Your task to perform on an android device: Search for the best coffee tables on Crate & Barrel Image 0: 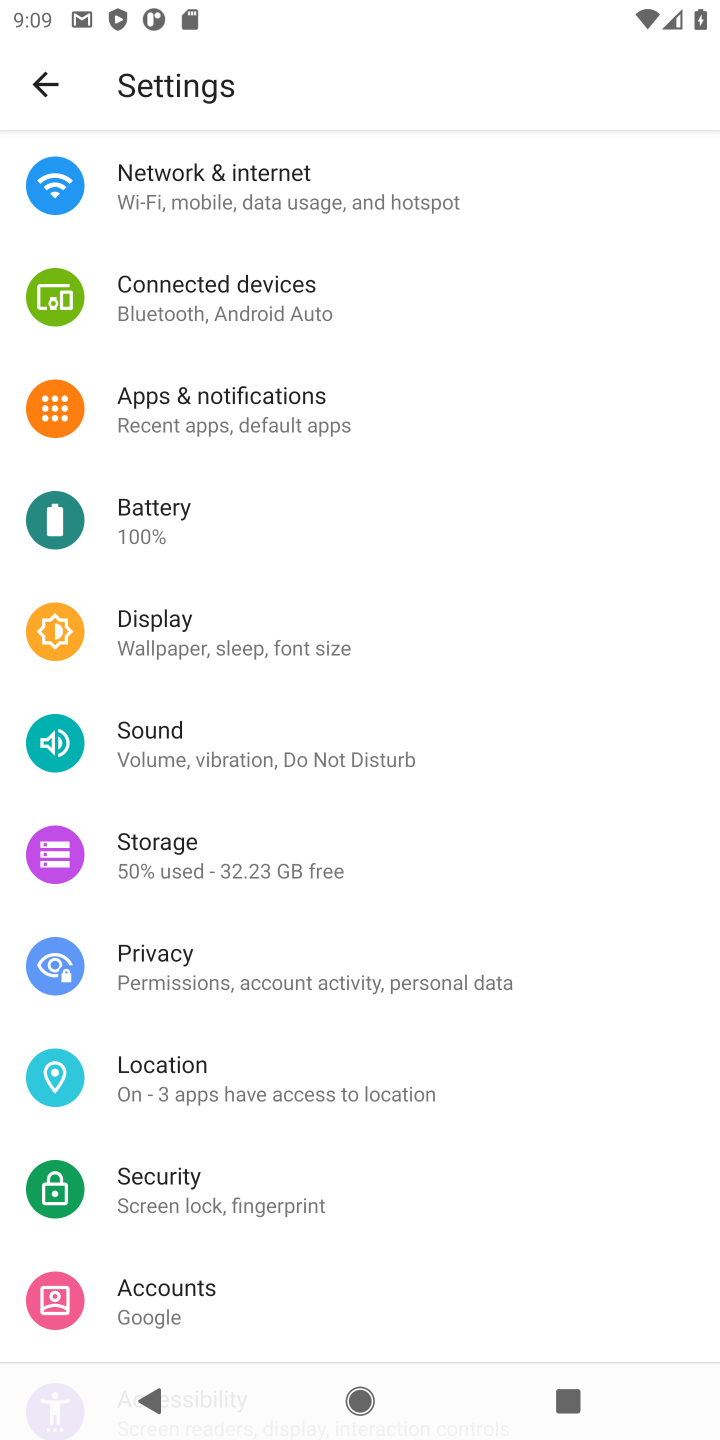
Step 0: press home button
Your task to perform on an android device: Search for the best coffee tables on Crate & Barrel Image 1: 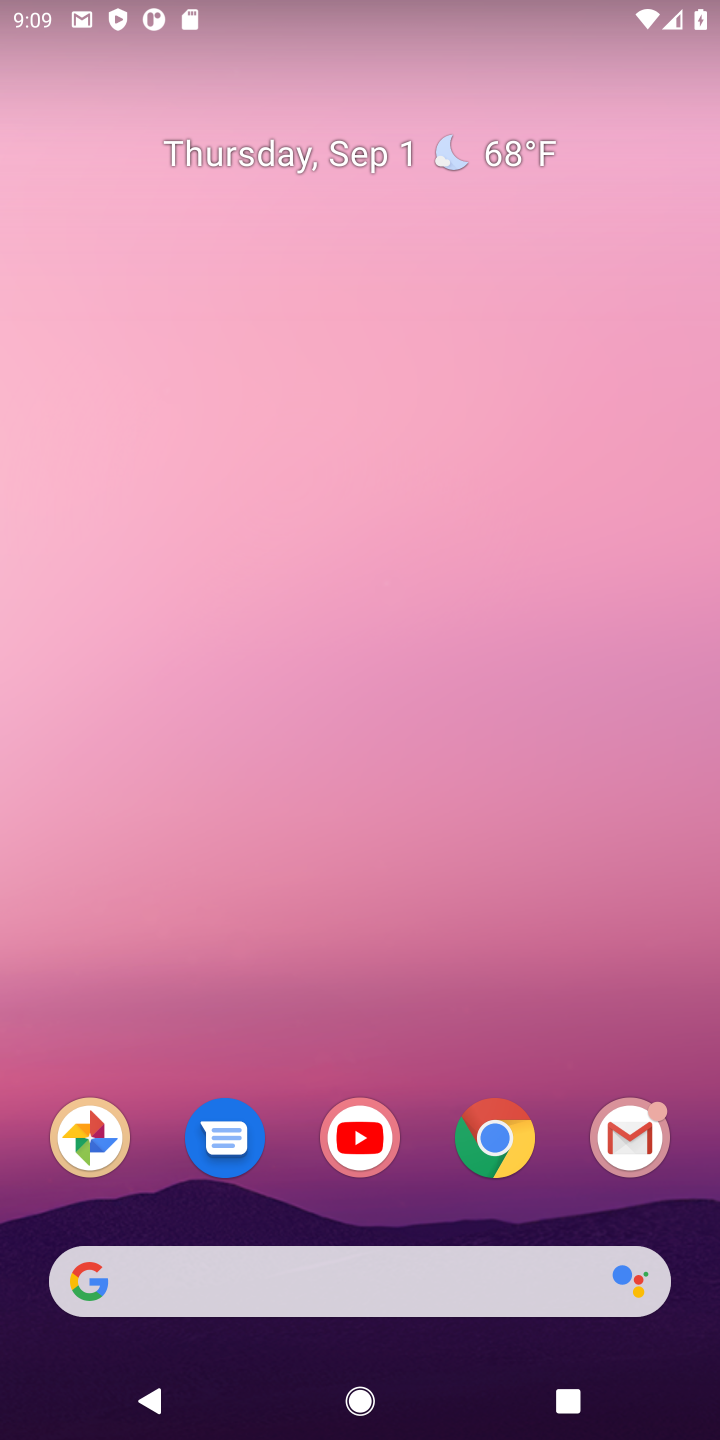
Step 1: click (486, 1135)
Your task to perform on an android device: Search for the best coffee tables on Crate & Barrel Image 2: 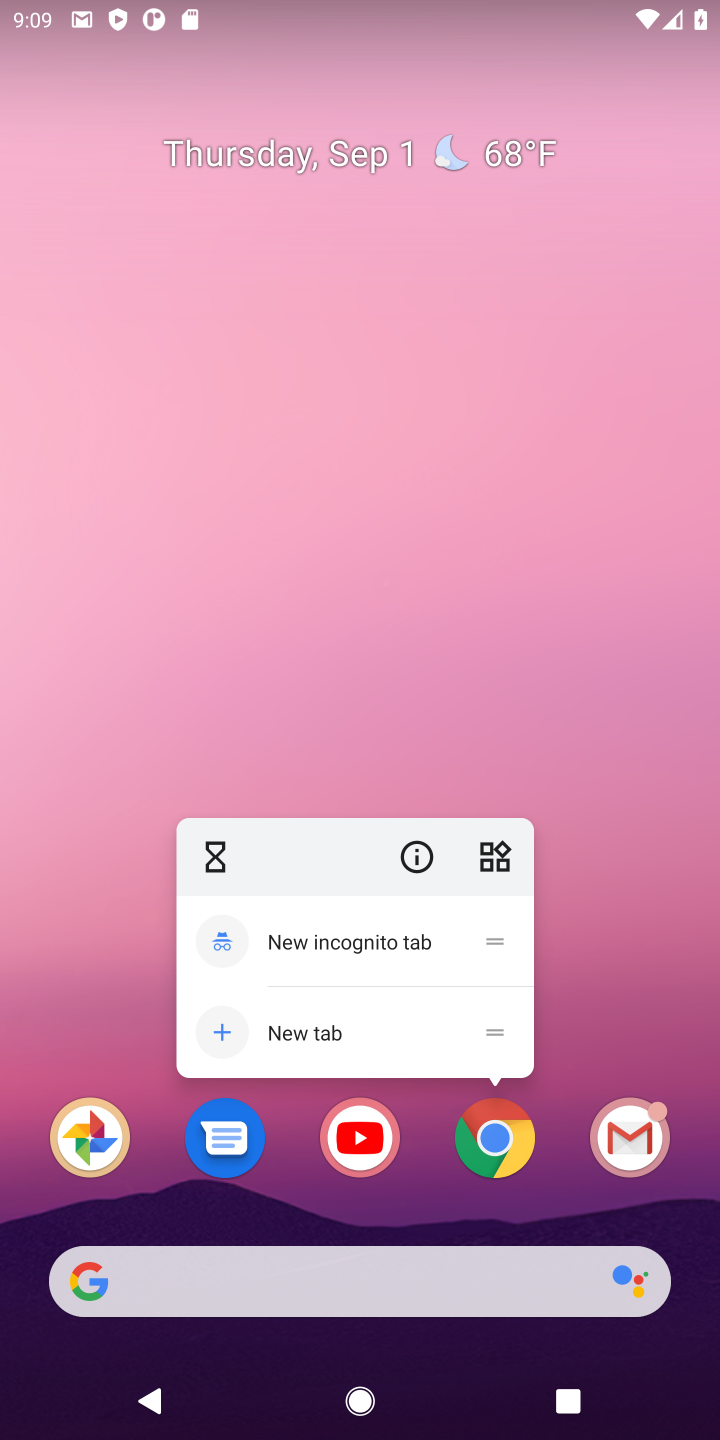
Step 2: click (376, 1026)
Your task to perform on an android device: Search for the best coffee tables on Crate & Barrel Image 3: 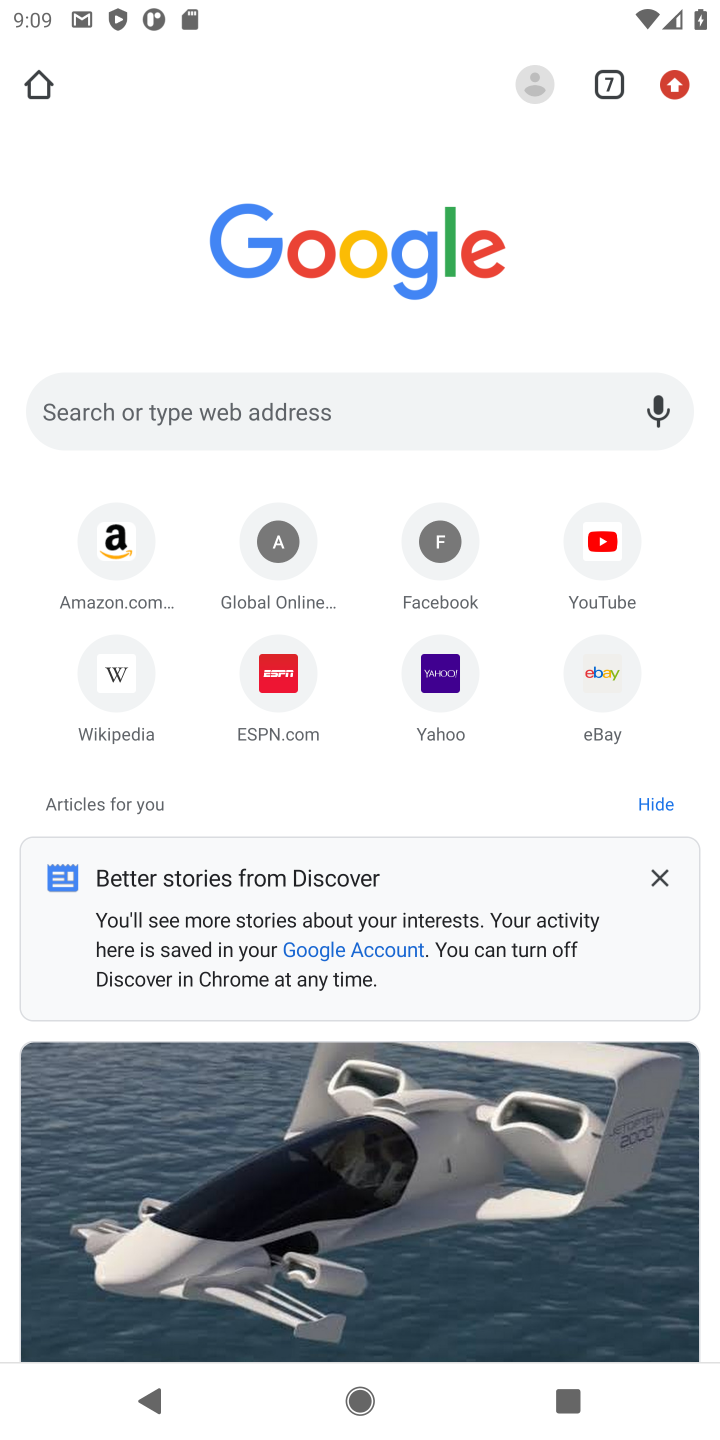
Step 3: click (276, 403)
Your task to perform on an android device: Search for the best coffee tables on Crate & Barrel Image 4: 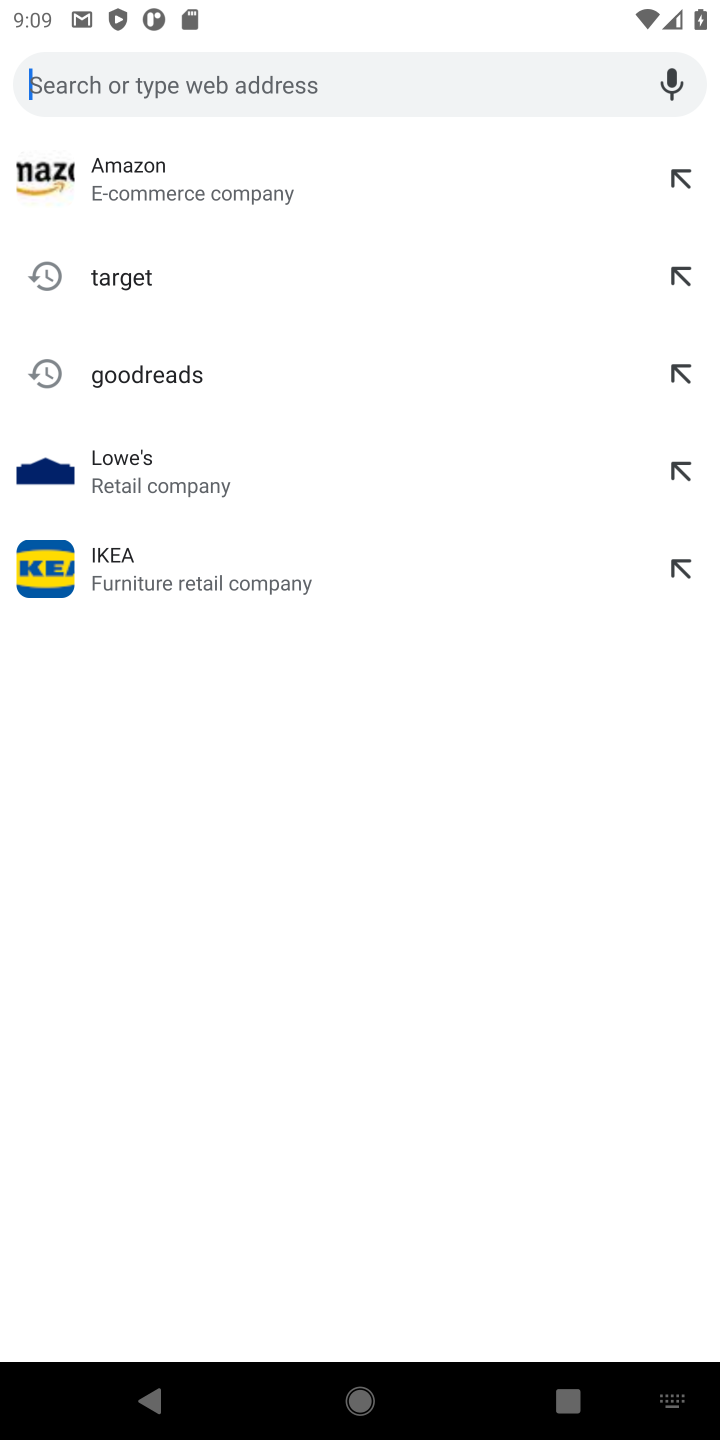
Step 4: type "Crate & Barrel"
Your task to perform on an android device: Search for the best coffee tables on Crate & Barrel Image 5: 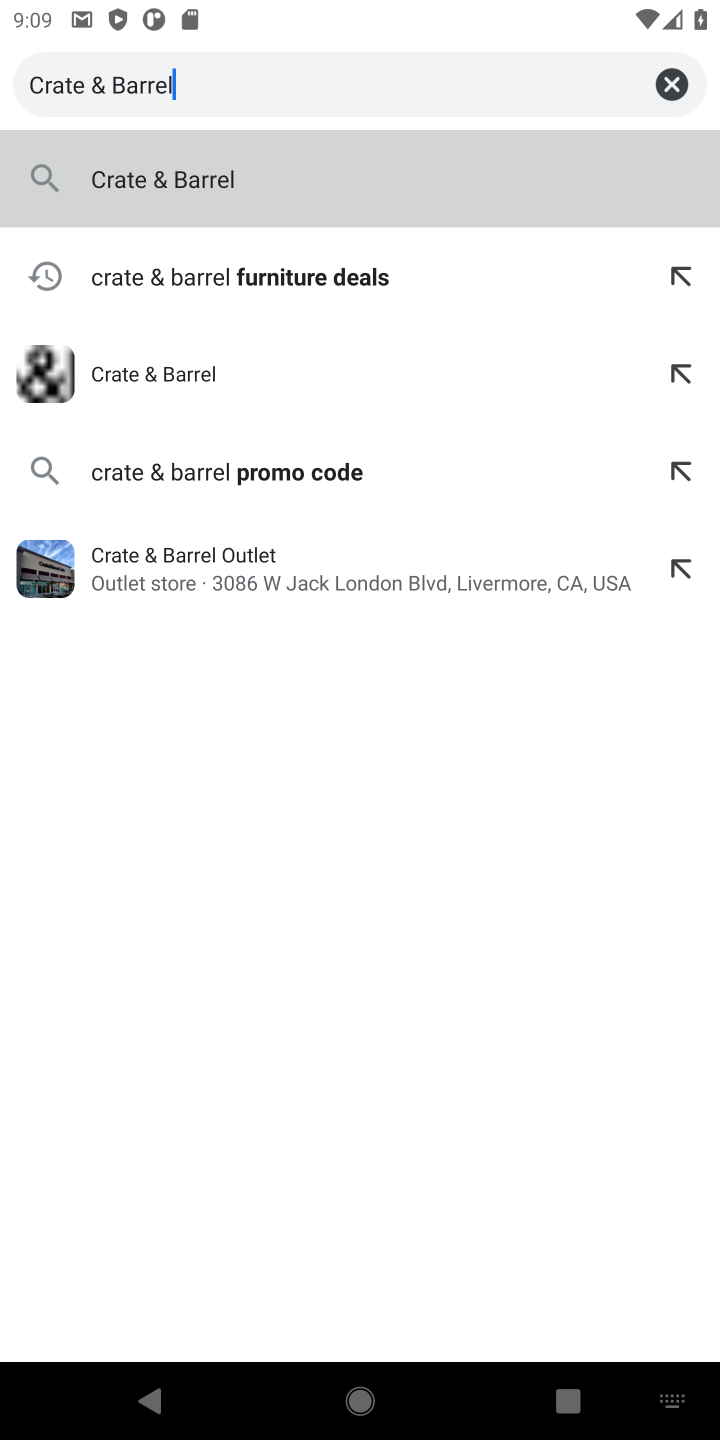
Step 5: click (301, 191)
Your task to perform on an android device: Search for the best coffee tables on Crate & Barrel Image 6: 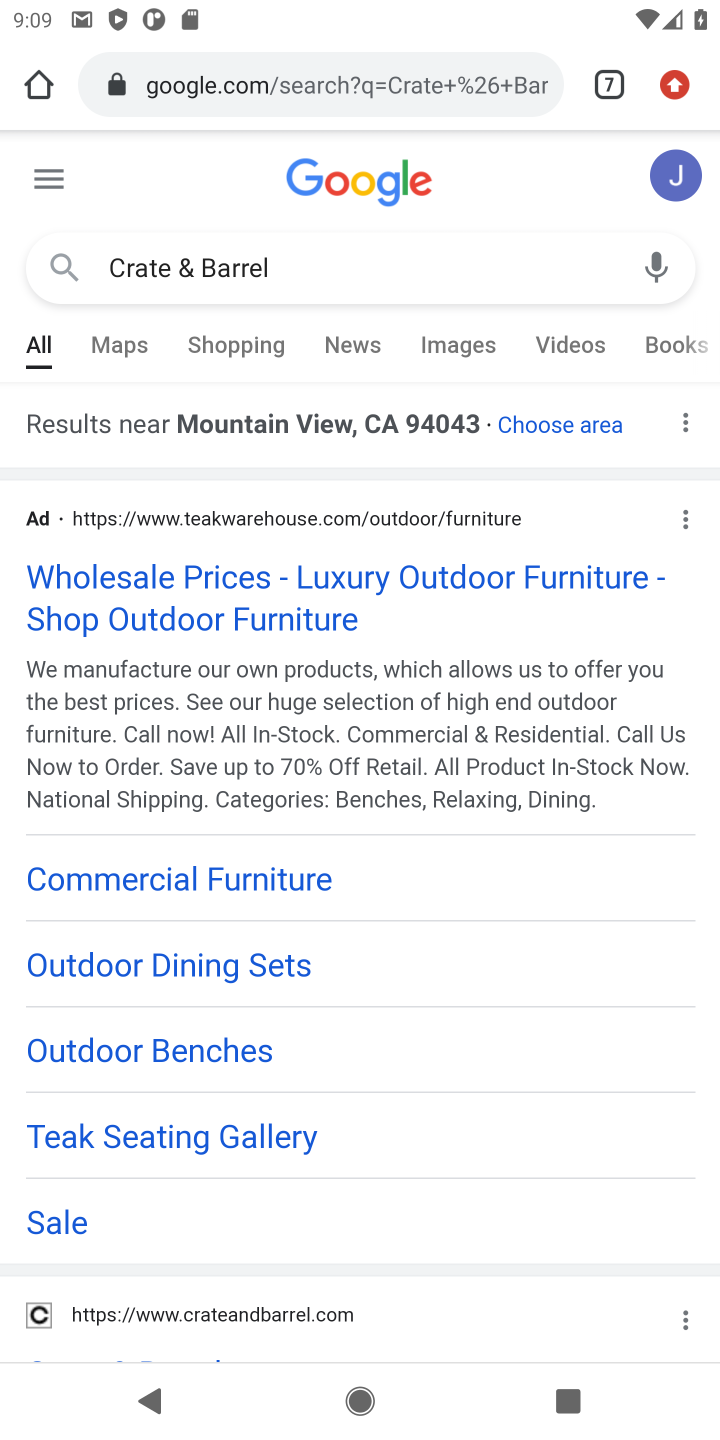
Step 6: drag from (411, 970) to (341, 494)
Your task to perform on an android device: Search for the best coffee tables on Crate & Barrel Image 7: 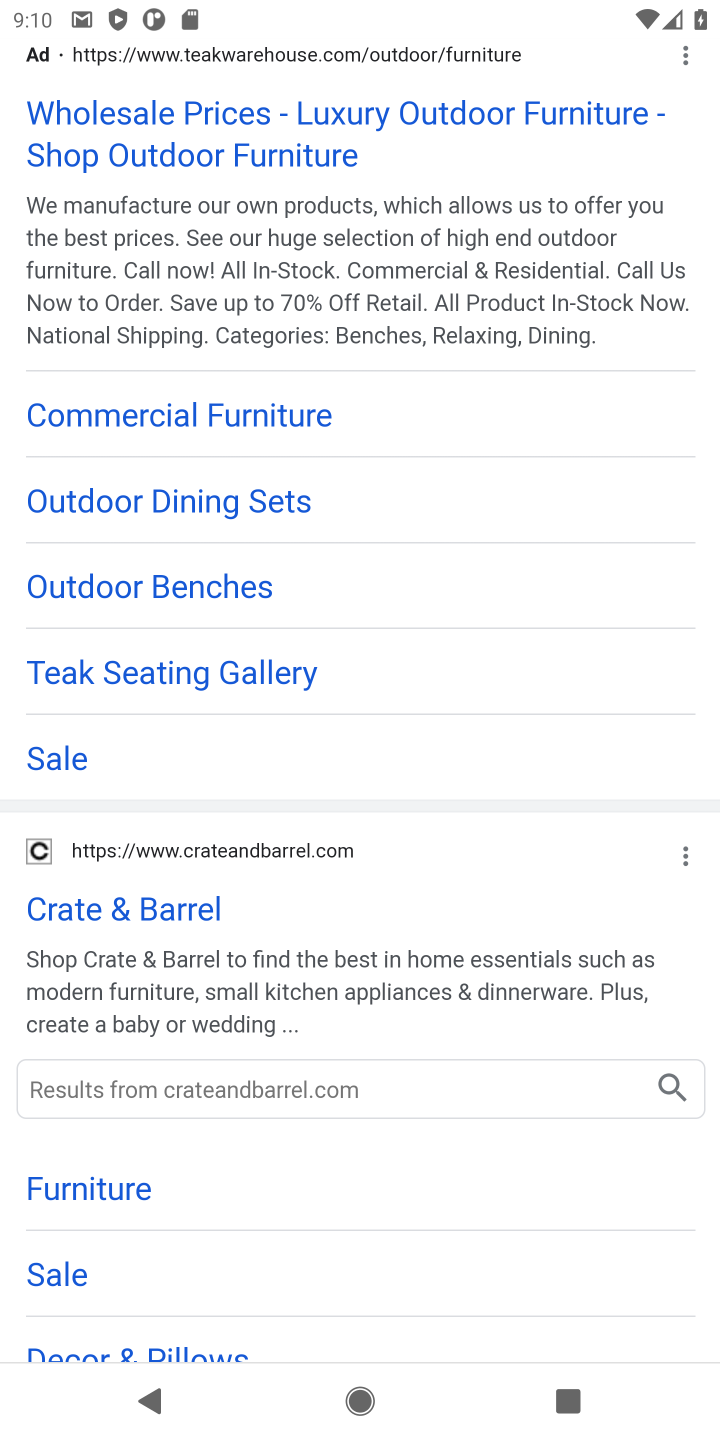
Step 7: click (167, 1288)
Your task to perform on an android device: Search for the best coffee tables on Crate & Barrel Image 8: 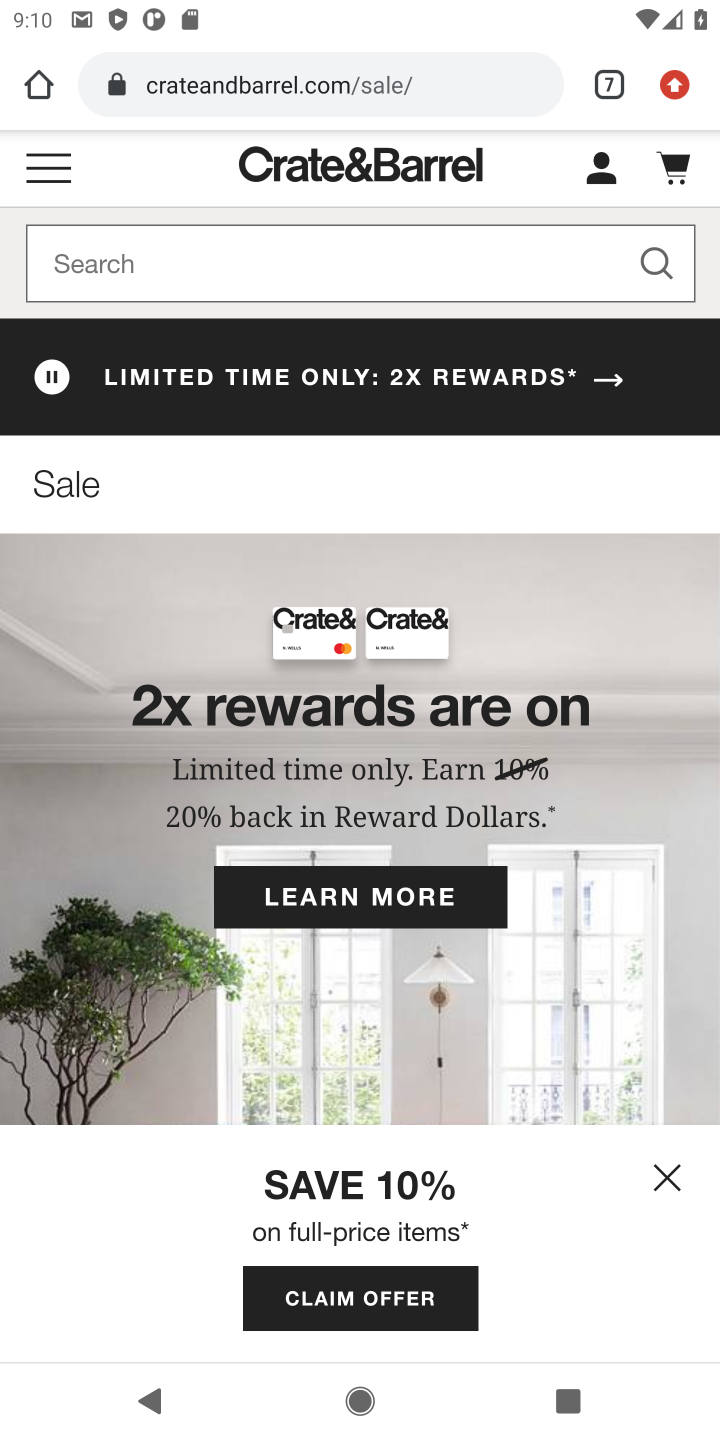
Step 8: click (354, 265)
Your task to perform on an android device: Search for the best coffee tables on Crate & Barrel Image 9: 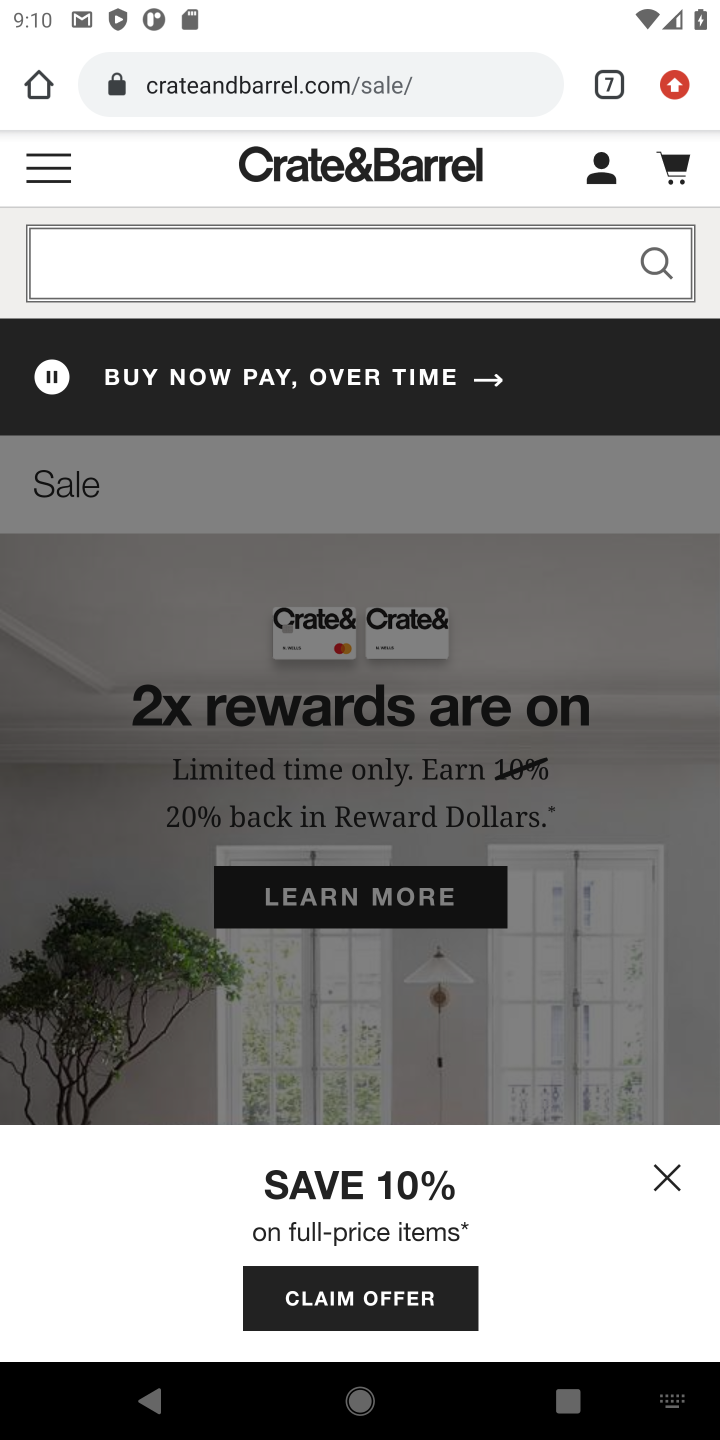
Step 9: type "best coffee tables"
Your task to perform on an android device: Search for the best coffee tables on Crate & Barrel Image 10: 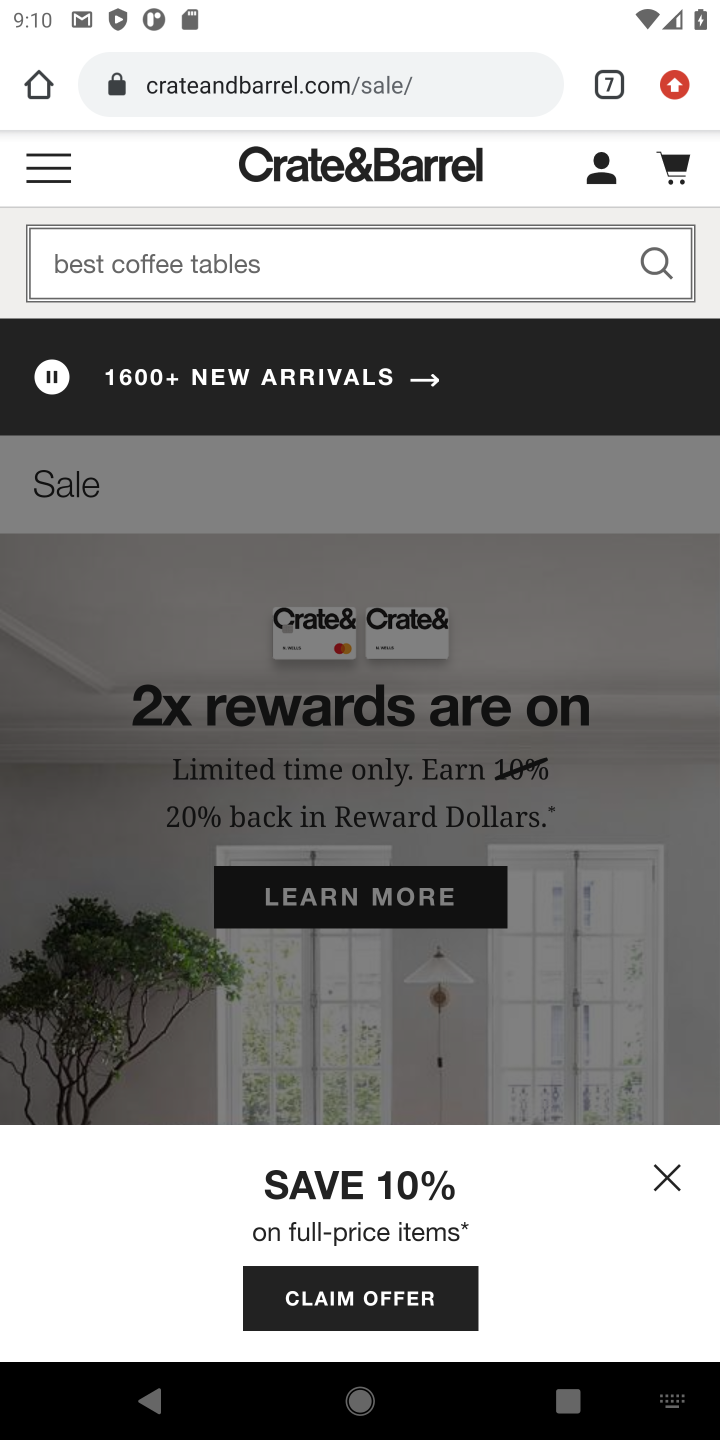
Step 10: click (654, 267)
Your task to perform on an android device: Search for the best coffee tables on Crate & Barrel Image 11: 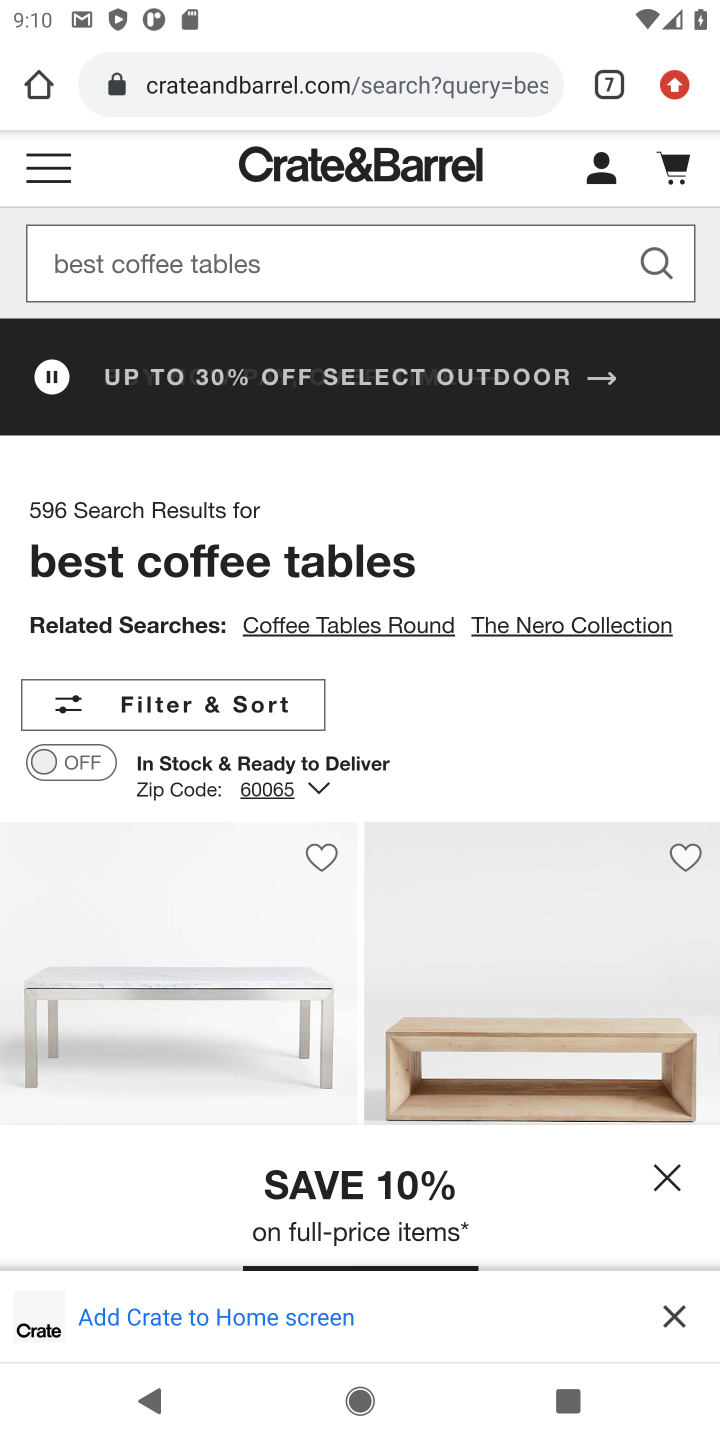
Step 11: task complete